Your task to perform on an android device: Open battery settings Image 0: 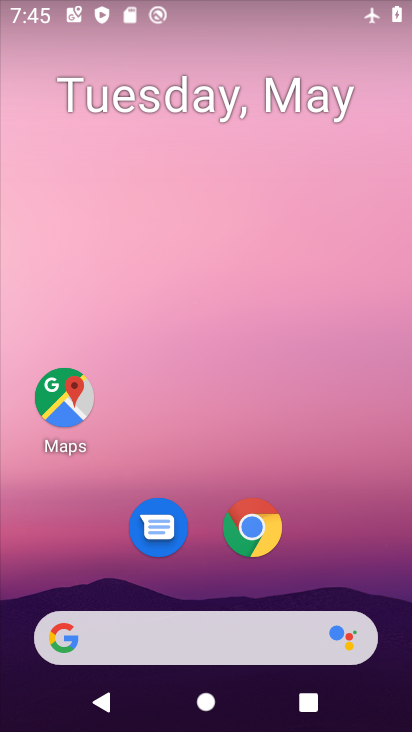
Step 0: drag from (332, 585) to (270, 222)
Your task to perform on an android device: Open battery settings Image 1: 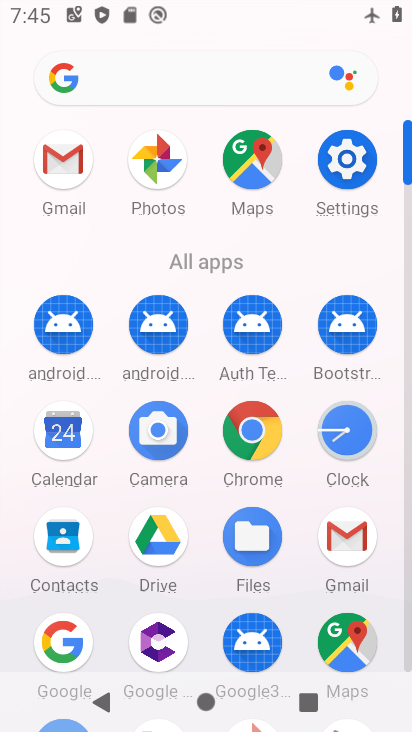
Step 1: click (348, 159)
Your task to perform on an android device: Open battery settings Image 2: 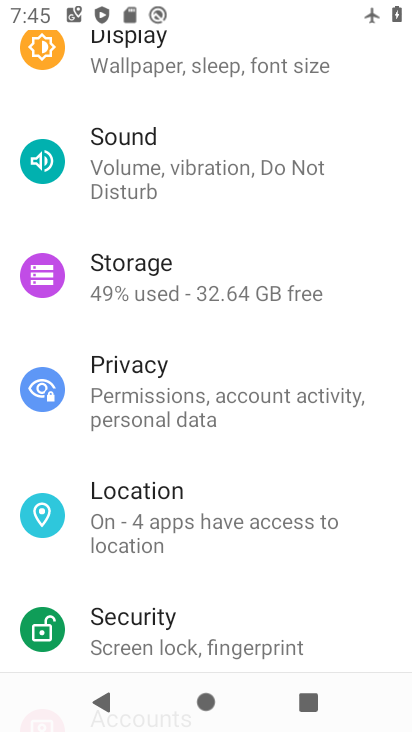
Step 2: drag from (219, 354) to (232, 447)
Your task to perform on an android device: Open battery settings Image 3: 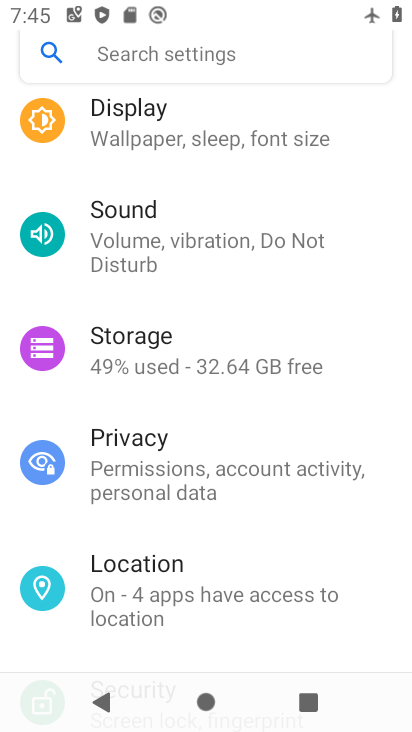
Step 3: drag from (243, 312) to (263, 431)
Your task to perform on an android device: Open battery settings Image 4: 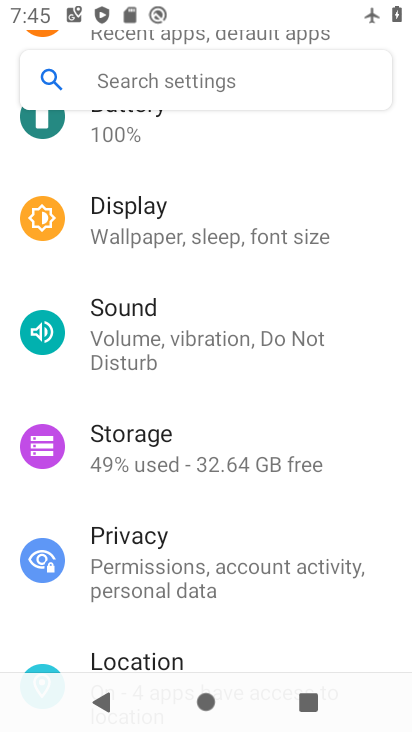
Step 4: drag from (234, 300) to (234, 425)
Your task to perform on an android device: Open battery settings Image 5: 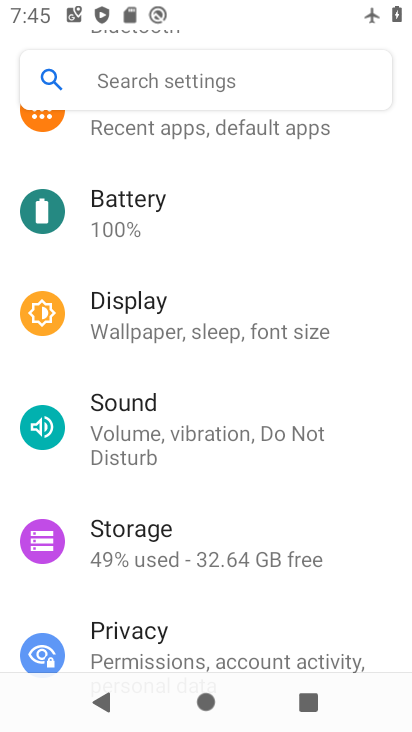
Step 5: click (130, 207)
Your task to perform on an android device: Open battery settings Image 6: 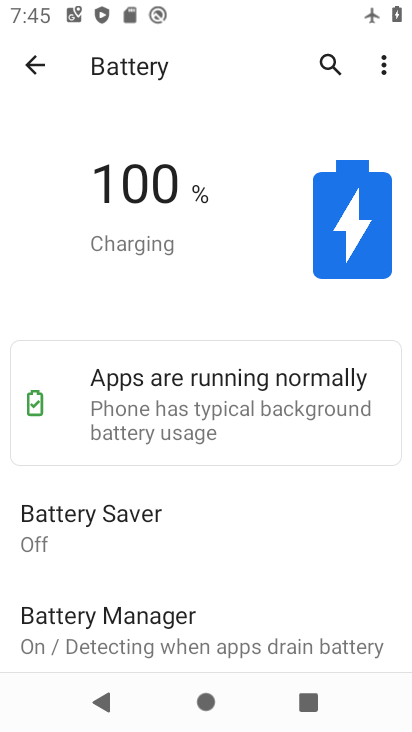
Step 6: task complete